Your task to perform on an android device: Search for pizza restaurants on Maps Image 0: 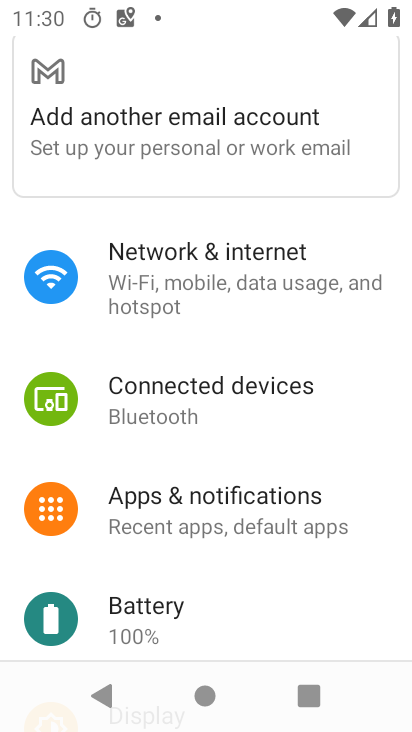
Step 0: press home button
Your task to perform on an android device: Search for pizza restaurants on Maps Image 1: 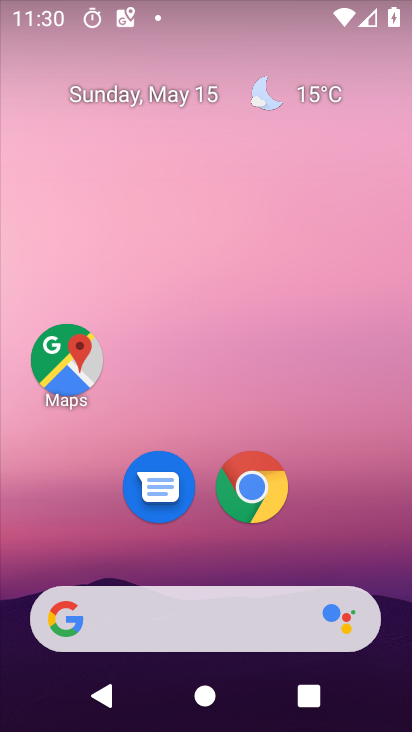
Step 1: click (50, 354)
Your task to perform on an android device: Search for pizza restaurants on Maps Image 2: 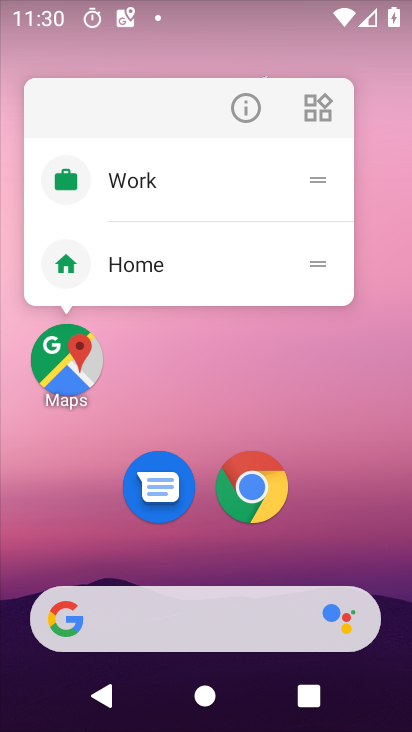
Step 2: click (49, 354)
Your task to perform on an android device: Search for pizza restaurants on Maps Image 3: 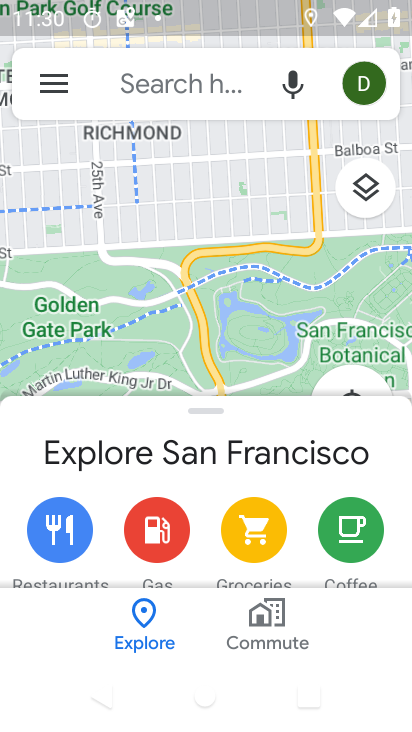
Step 3: click (155, 89)
Your task to perform on an android device: Search for pizza restaurants on Maps Image 4: 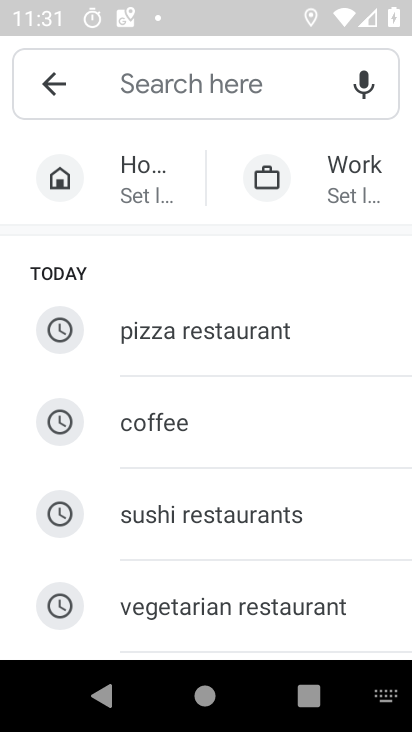
Step 4: type "pizza restaurants"
Your task to perform on an android device: Search for pizza restaurants on Maps Image 5: 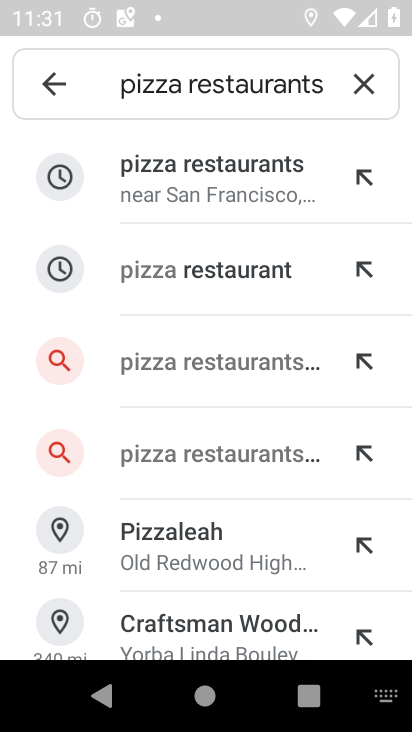
Step 5: click (208, 172)
Your task to perform on an android device: Search for pizza restaurants on Maps Image 6: 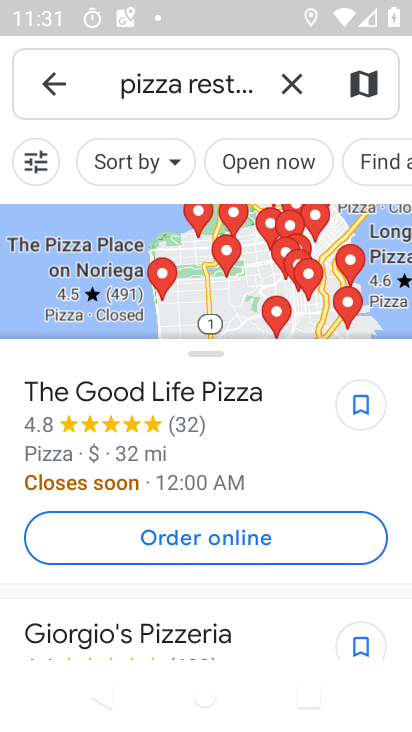
Step 6: task complete